Your task to perform on an android device: Go to CNN.com Image 0: 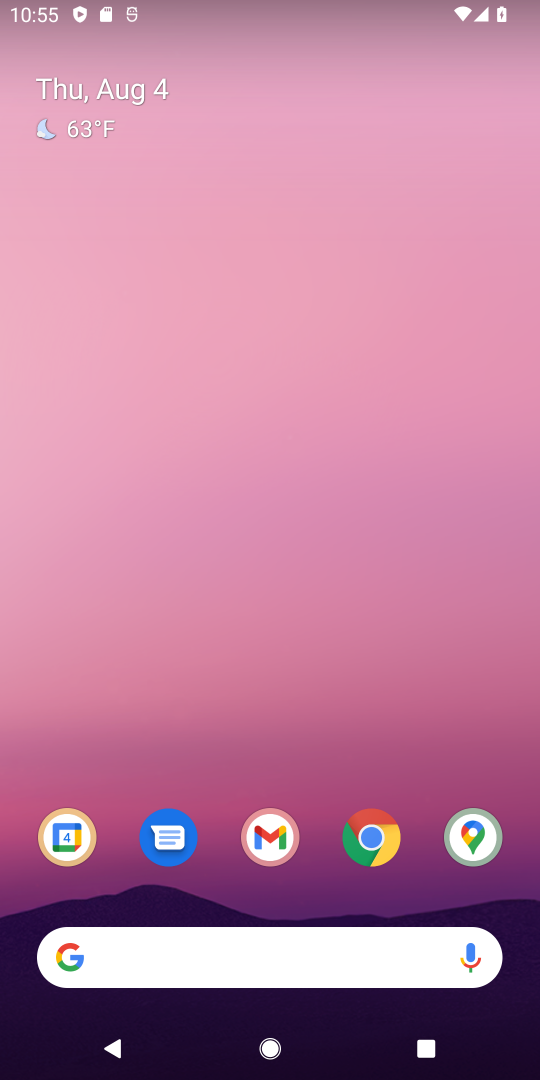
Step 0: press home button
Your task to perform on an android device: Go to CNN.com Image 1: 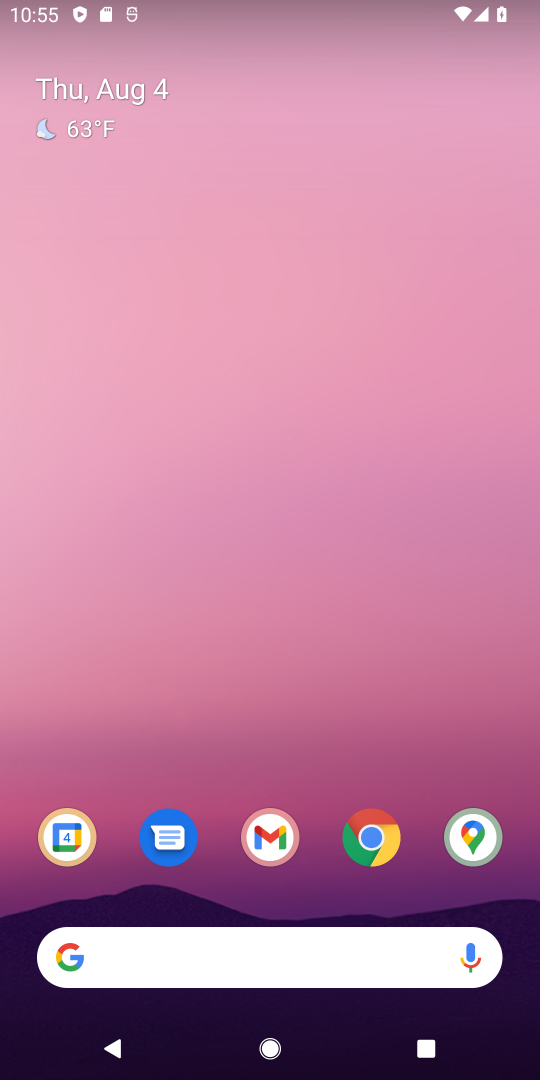
Step 1: drag from (321, 888) to (332, 215)
Your task to perform on an android device: Go to CNN.com Image 2: 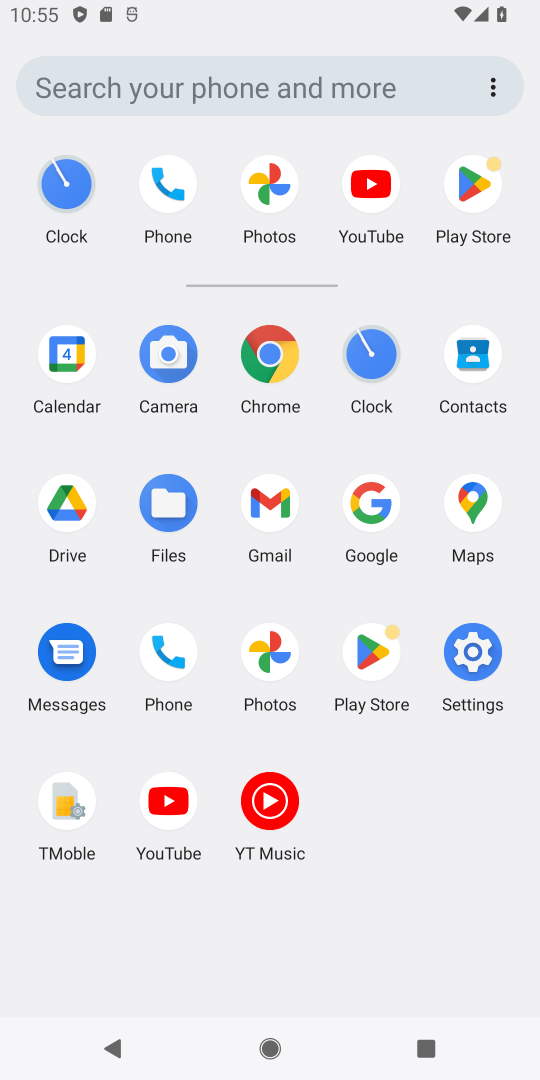
Step 2: click (277, 356)
Your task to perform on an android device: Go to CNN.com Image 3: 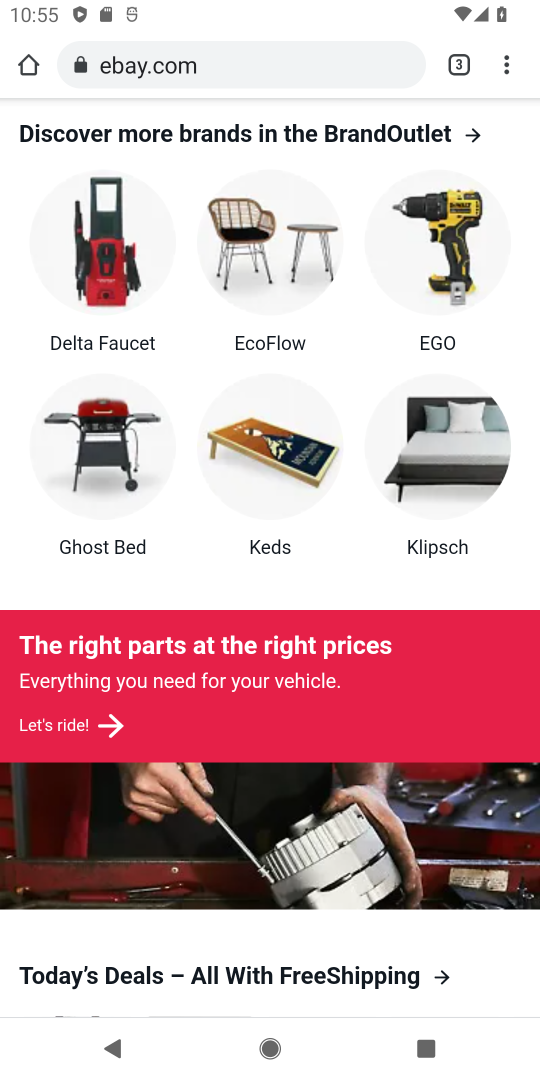
Step 3: click (453, 56)
Your task to perform on an android device: Go to CNN.com Image 4: 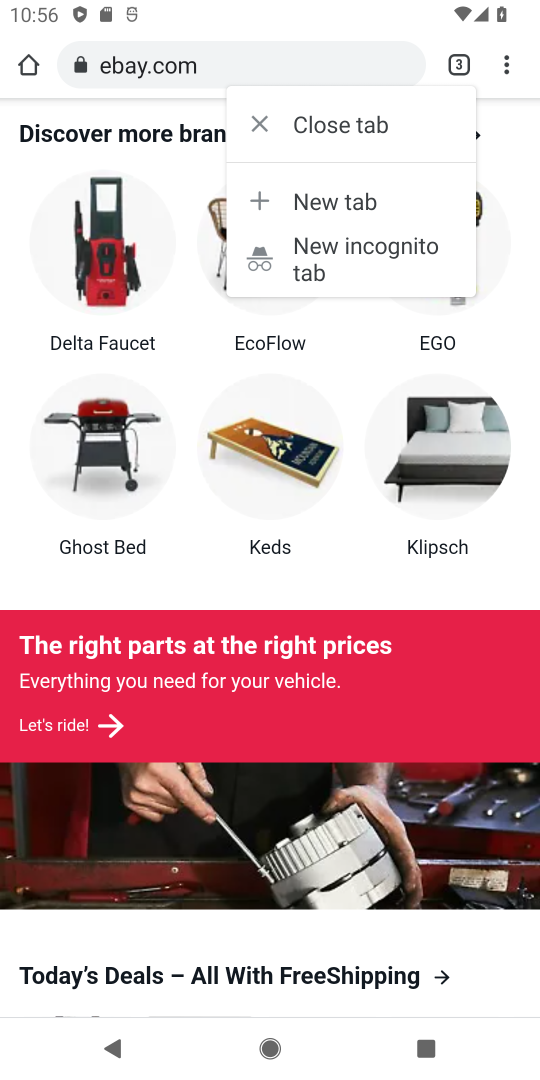
Step 4: click (337, 189)
Your task to perform on an android device: Go to CNN.com Image 5: 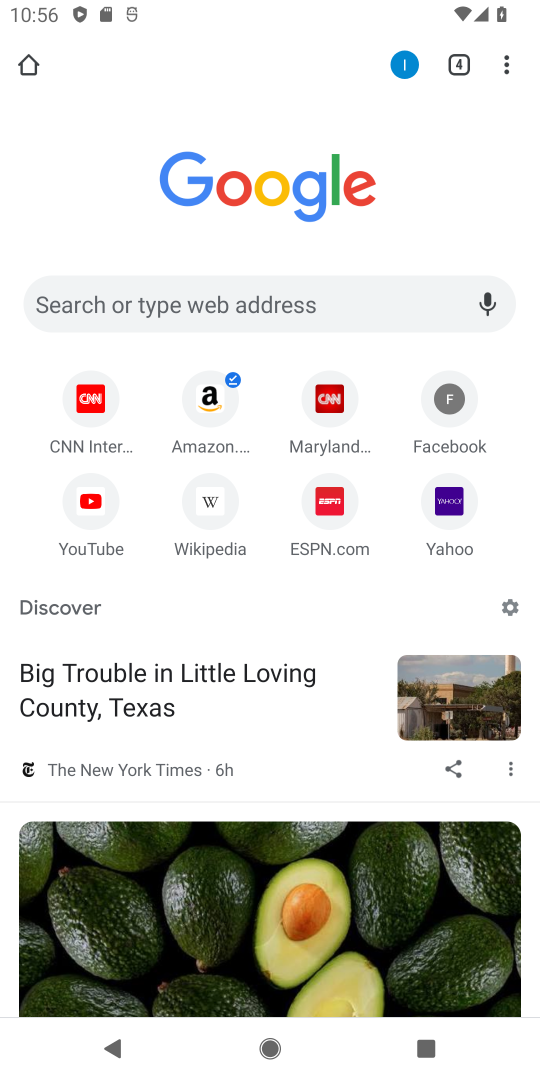
Step 5: click (86, 404)
Your task to perform on an android device: Go to CNN.com Image 6: 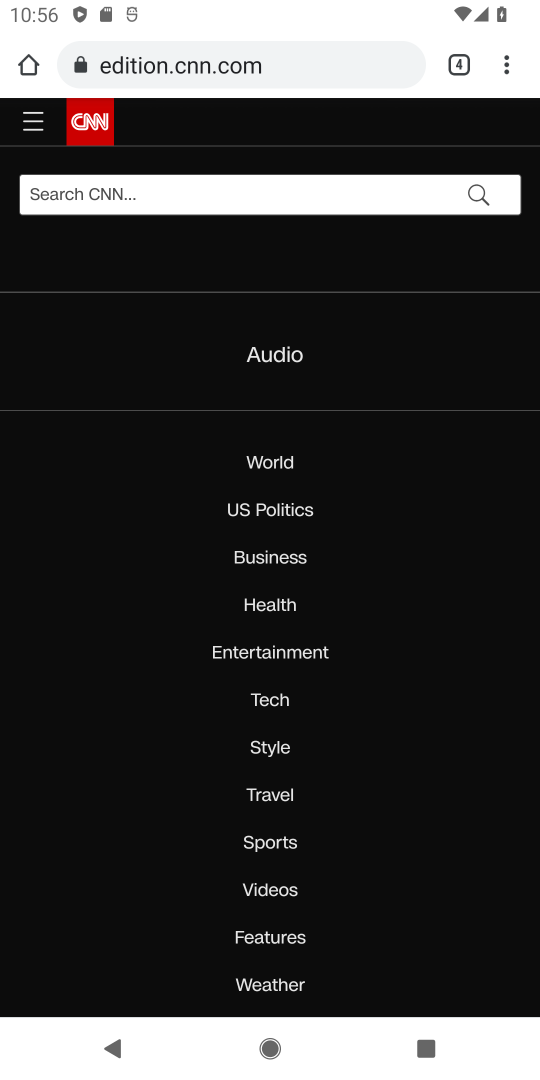
Step 6: task complete